Your task to perform on an android device: manage bookmarks in the chrome app Image 0: 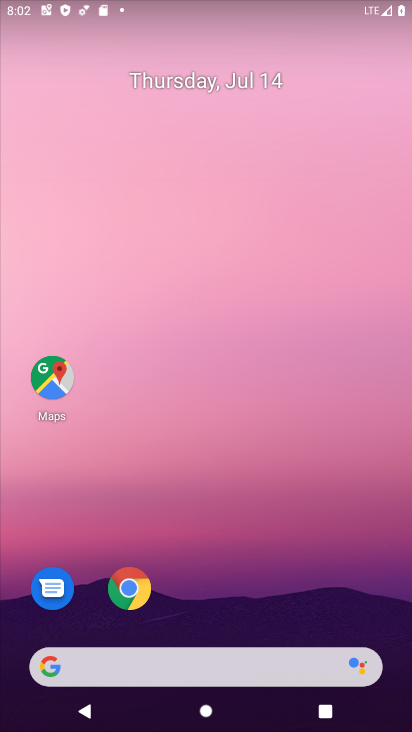
Step 0: drag from (361, 618) to (311, 130)
Your task to perform on an android device: manage bookmarks in the chrome app Image 1: 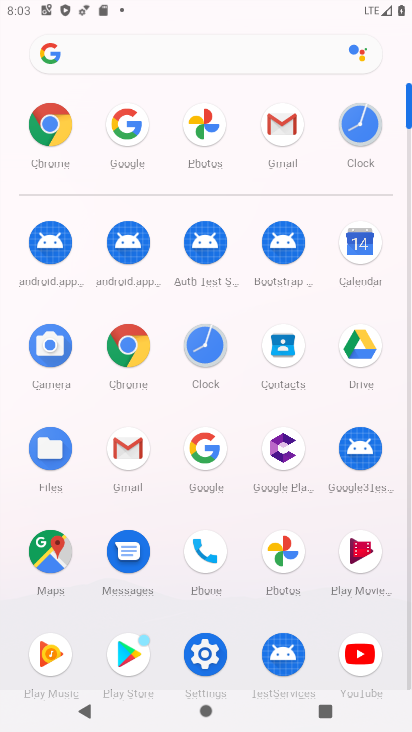
Step 1: click (124, 355)
Your task to perform on an android device: manage bookmarks in the chrome app Image 2: 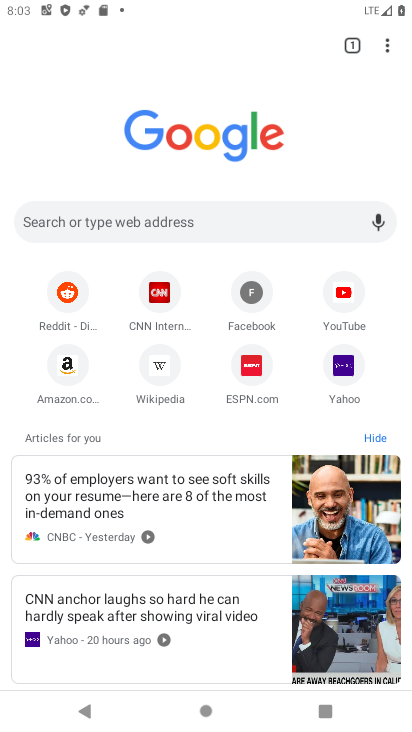
Step 2: task complete